Your task to perform on an android device: Go to ESPN.com Image 0: 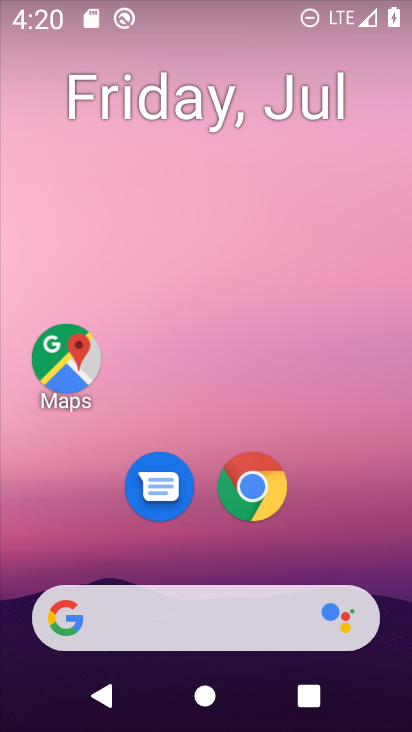
Step 0: click (262, 500)
Your task to perform on an android device: Go to ESPN.com Image 1: 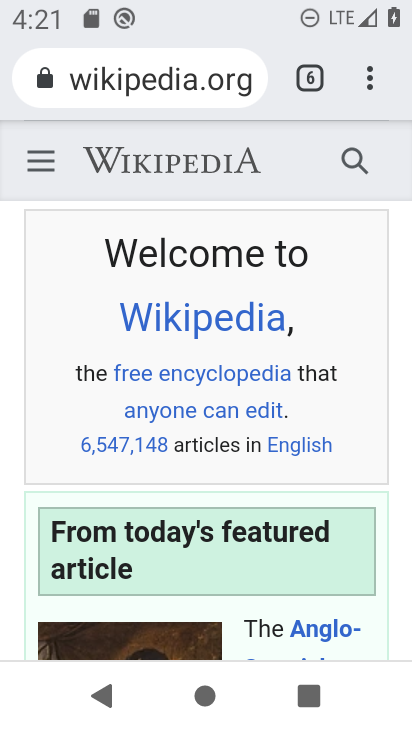
Step 1: click (313, 75)
Your task to perform on an android device: Go to ESPN.com Image 2: 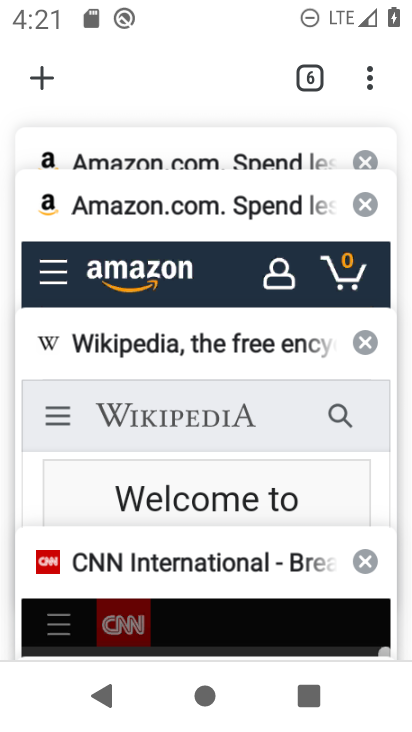
Step 2: drag from (171, 186) to (171, 671)
Your task to perform on an android device: Go to ESPN.com Image 3: 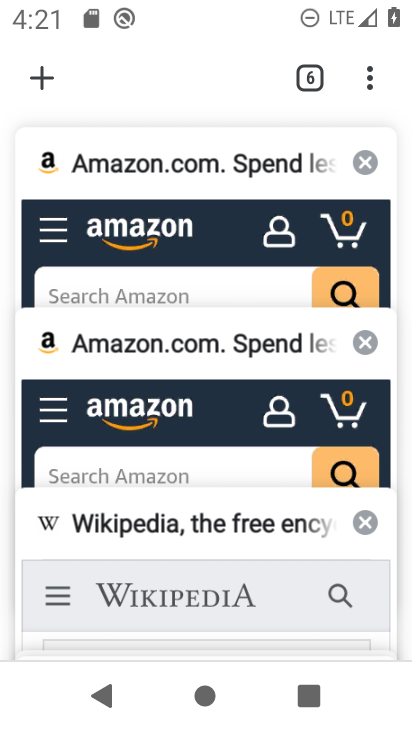
Step 3: click (56, 85)
Your task to perform on an android device: Go to ESPN.com Image 4: 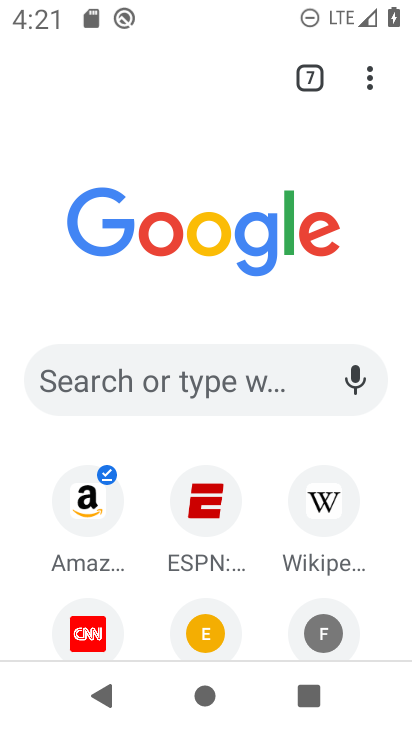
Step 4: click (201, 507)
Your task to perform on an android device: Go to ESPN.com Image 5: 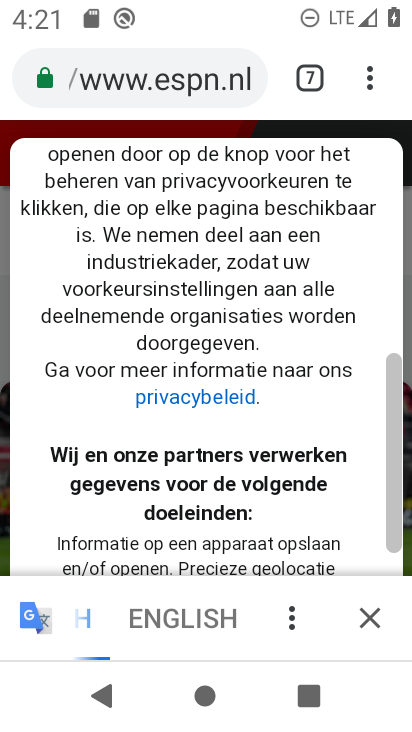
Step 5: task complete